Your task to perform on an android device: Go to accessibility settings Image 0: 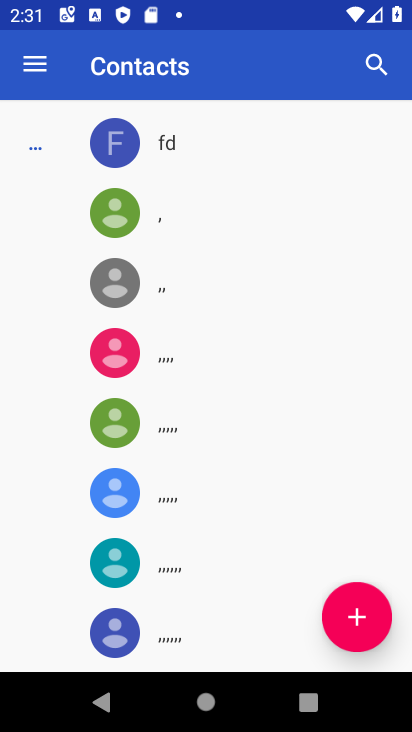
Step 0: press home button
Your task to perform on an android device: Go to accessibility settings Image 1: 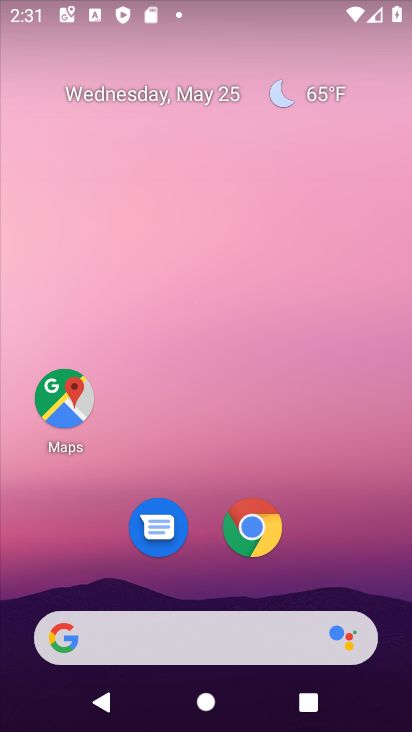
Step 1: drag from (319, 648) to (329, 72)
Your task to perform on an android device: Go to accessibility settings Image 2: 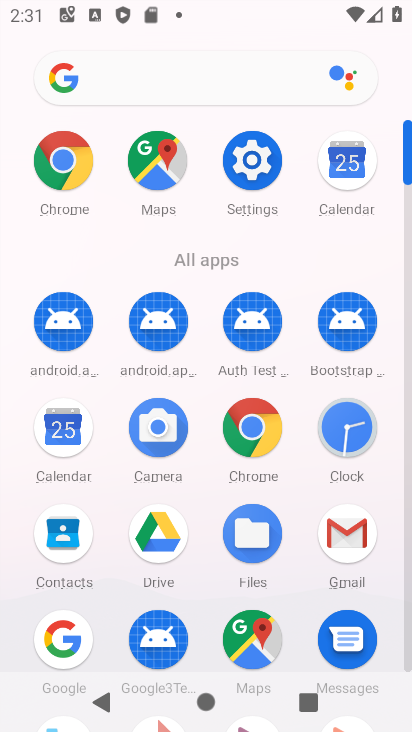
Step 2: click (251, 155)
Your task to perform on an android device: Go to accessibility settings Image 3: 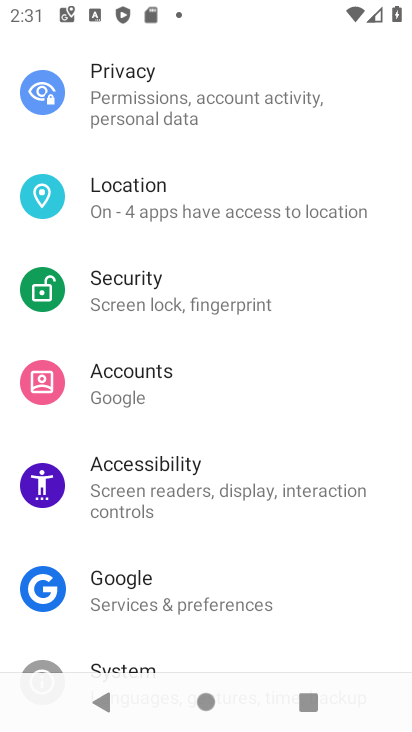
Step 3: click (196, 482)
Your task to perform on an android device: Go to accessibility settings Image 4: 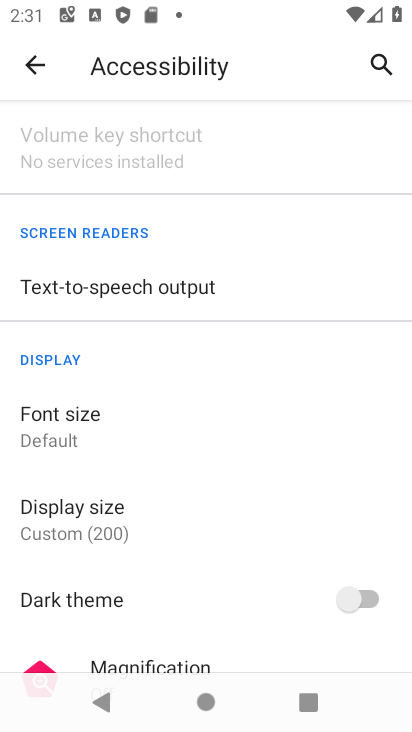
Step 4: task complete